Your task to perform on an android device: Check the news Image 0: 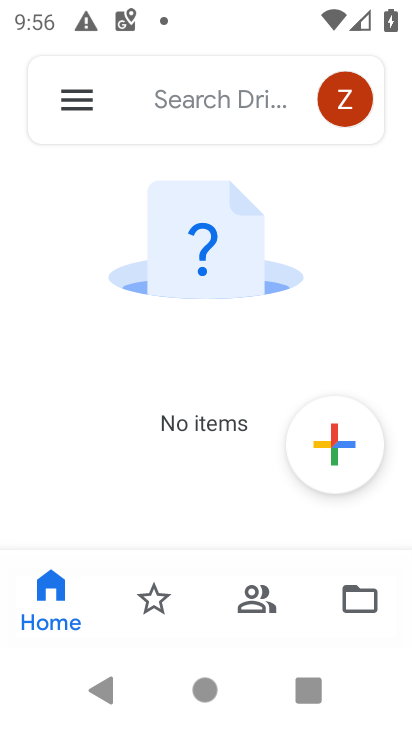
Step 0: press home button
Your task to perform on an android device: Check the news Image 1: 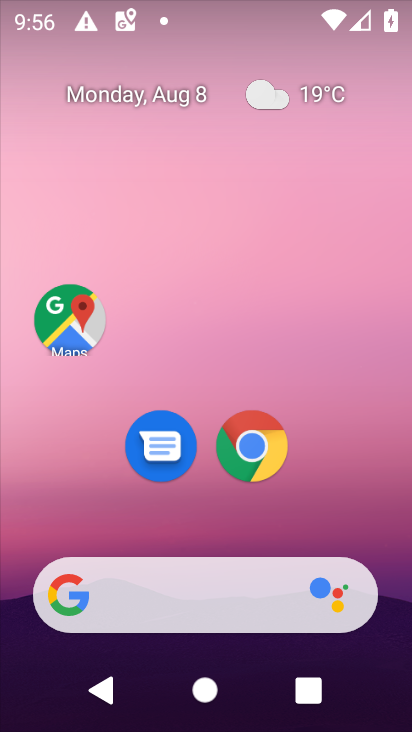
Step 1: task complete